Your task to perform on an android device: move an email to a new category in the gmail app Image 0: 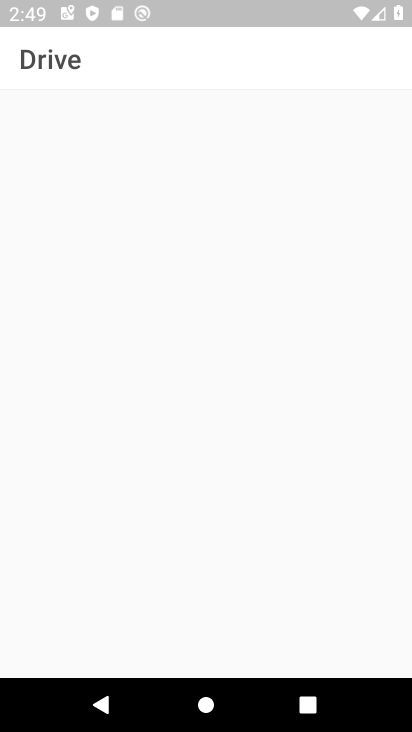
Step 0: press home button
Your task to perform on an android device: move an email to a new category in the gmail app Image 1: 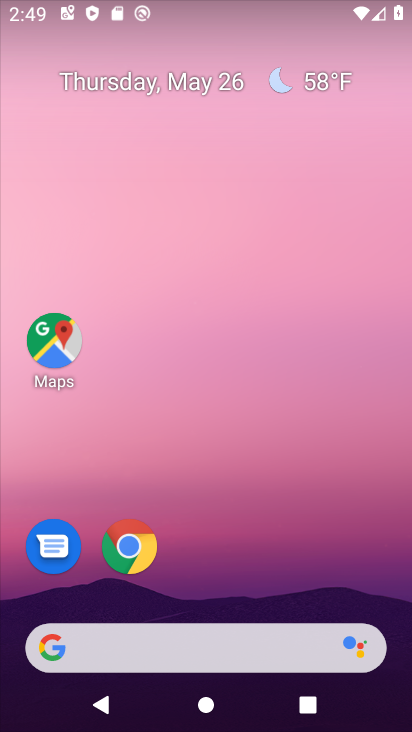
Step 1: drag from (278, 594) to (379, 23)
Your task to perform on an android device: move an email to a new category in the gmail app Image 2: 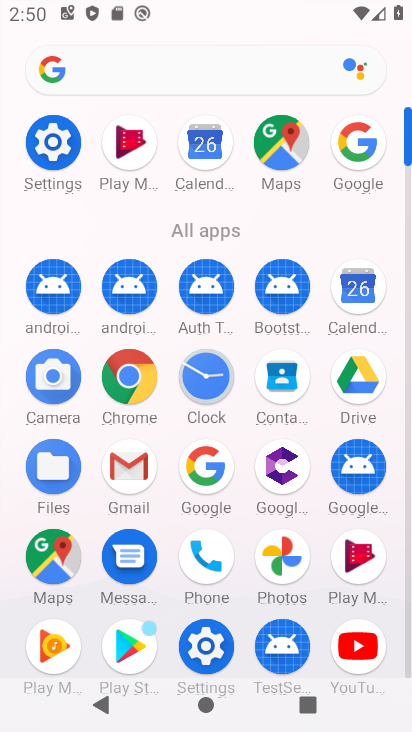
Step 2: click (135, 469)
Your task to perform on an android device: move an email to a new category in the gmail app Image 3: 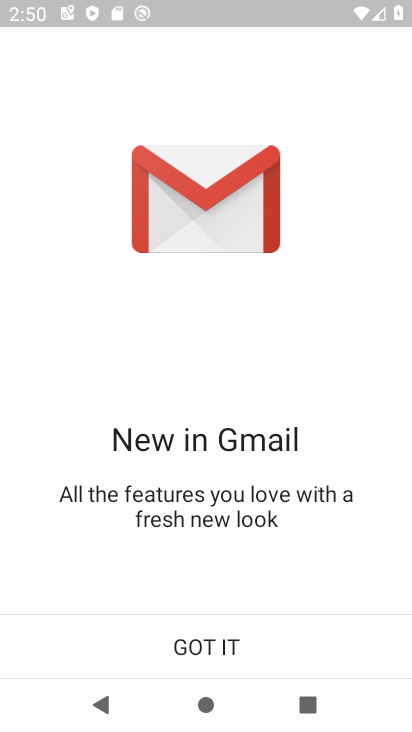
Step 3: click (210, 642)
Your task to perform on an android device: move an email to a new category in the gmail app Image 4: 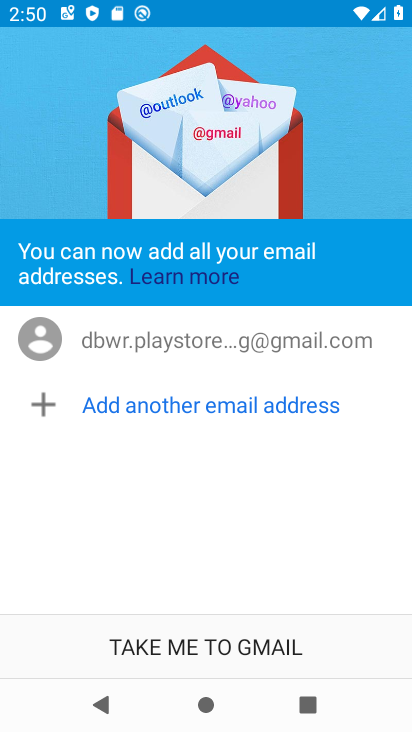
Step 4: click (209, 641)
Your task to perform on an android device: move an email to a new category in the gmail app Image 5: 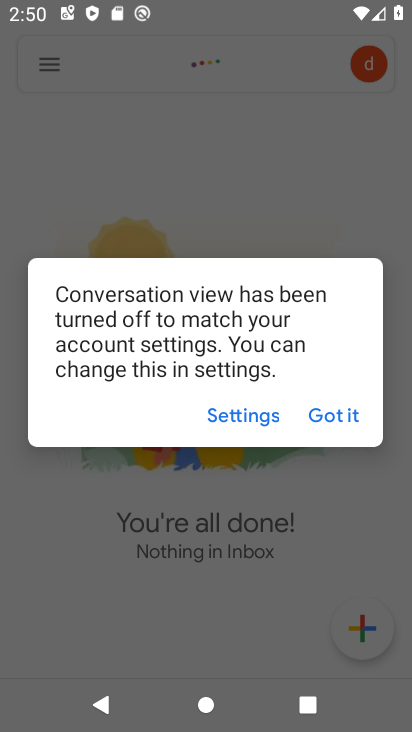
Step 5: click (356, 419)
Your task to perform on an android device: move an email to a new category in the gmail app Image 6: 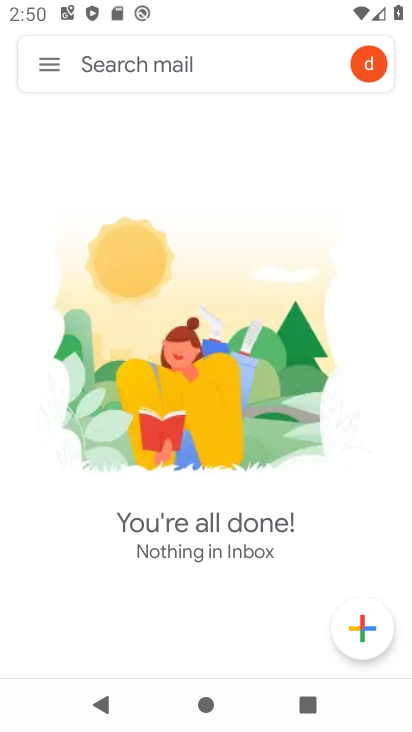
Step 6: task complete